Your task to perform on an android device: Check the news Image 0: 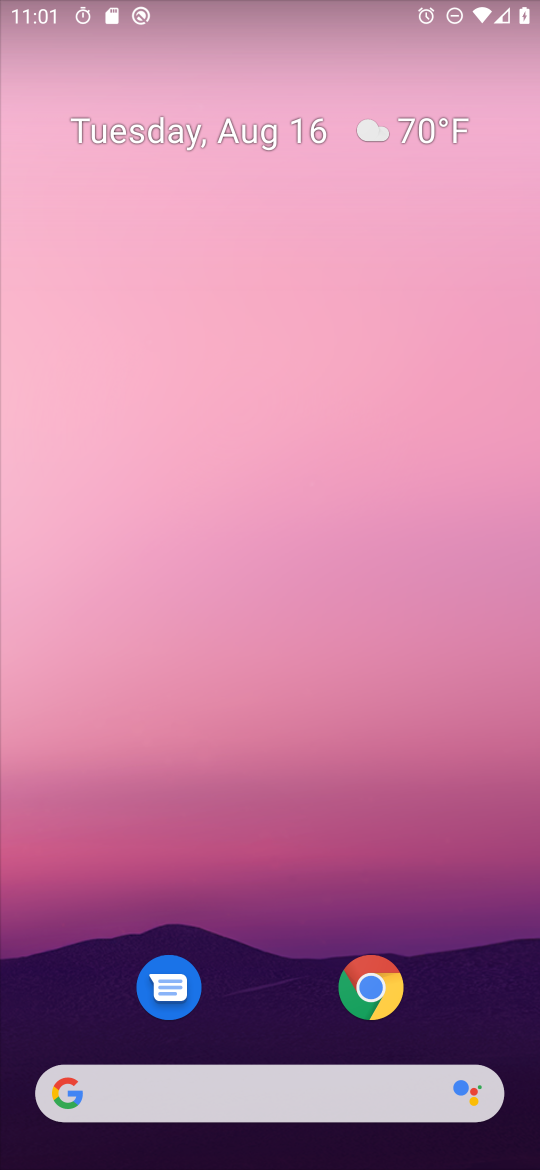
Step 0: click (116, 1089)
Your task to perform on an android device: Check the news Image 1: 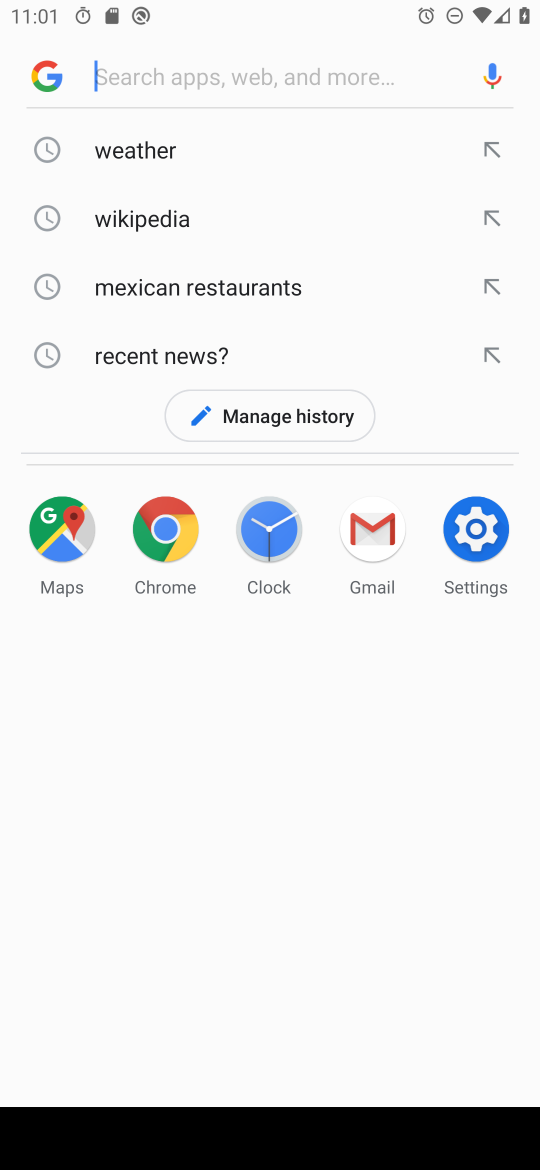
Step 1: type "Check the news"
Your task to perform on an android device: Check the news Image 2: 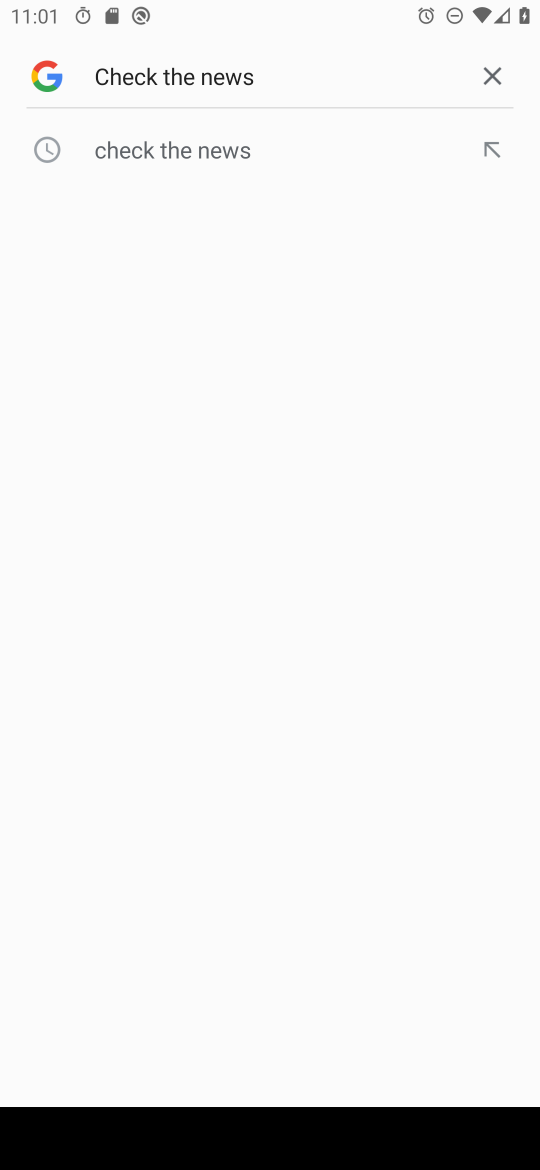
Step 2: click (207, 150)
Your task to perform on an android device: Check the news Image 3: 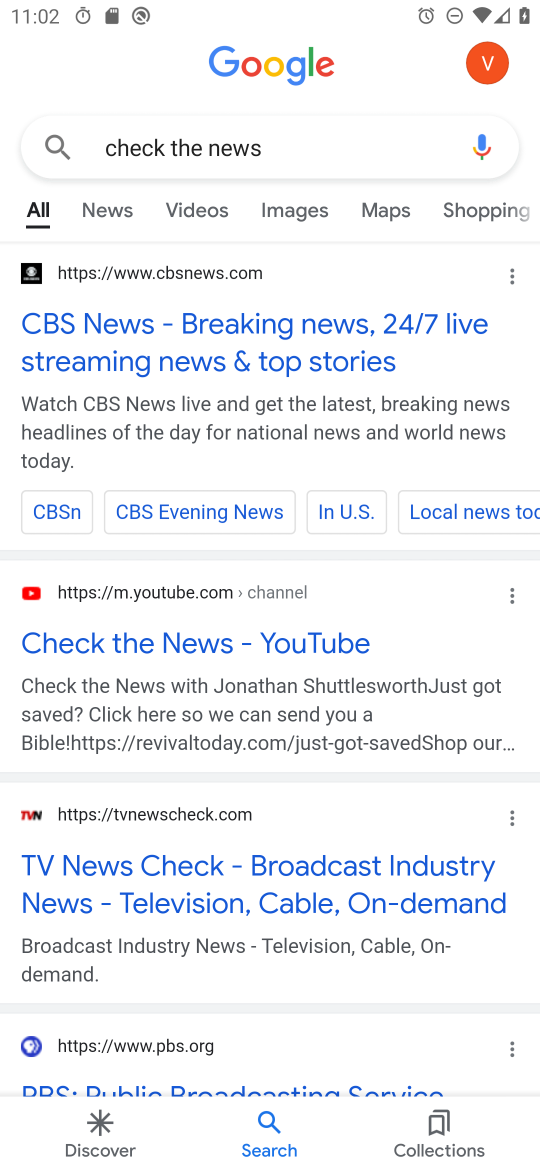
Step 3: task complete